Your task to perform on an android device: Go to Maps Image 0: 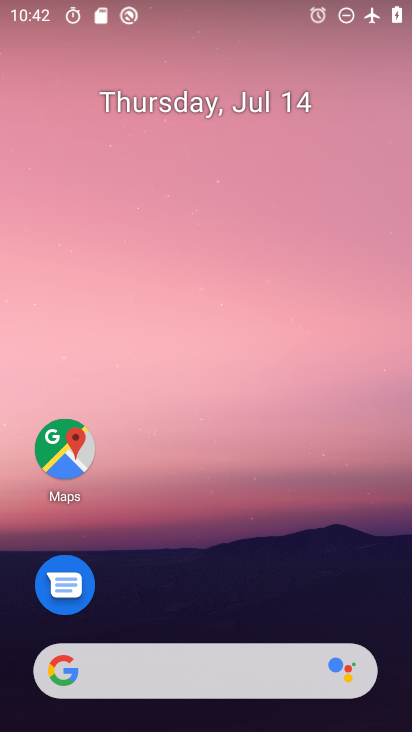
Step 0: drag from (227, 621) to (39, 21)
Your task to perform on an android device: Go to Maps Image 1: 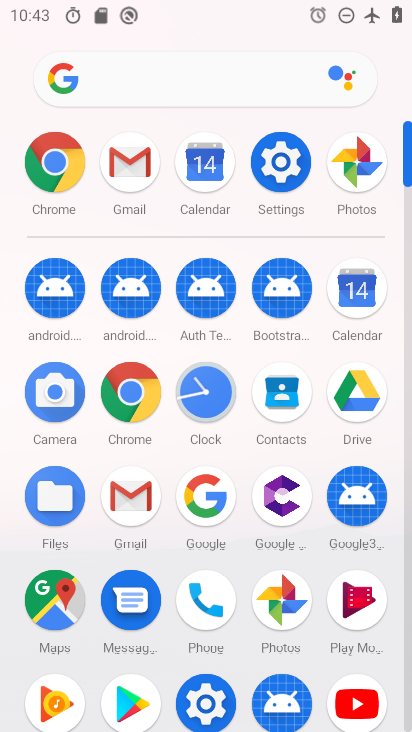
Step 1: click (68, 598)
Your task to perform on an android device: Go to Maps Image 2: 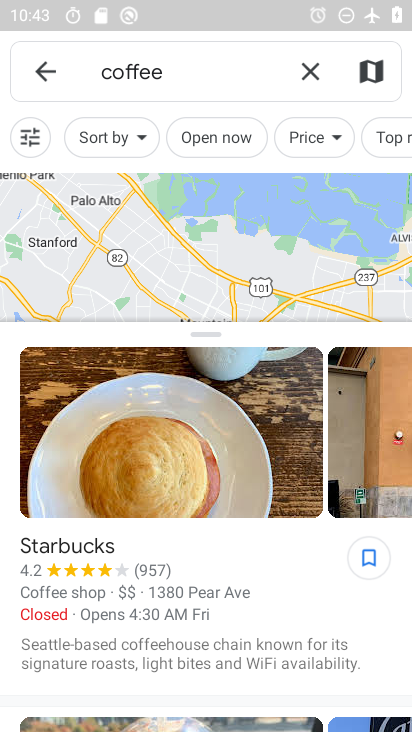
Step 2: task complete